Your task to perform on an android device: delete location history Image 0: 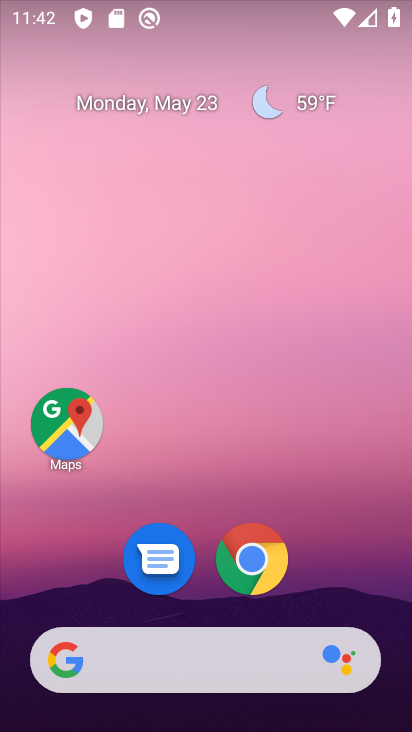
Step 0: drag from (399, 694) to (326, 165)
Your task to perform on an android device: delete location history Image 1: 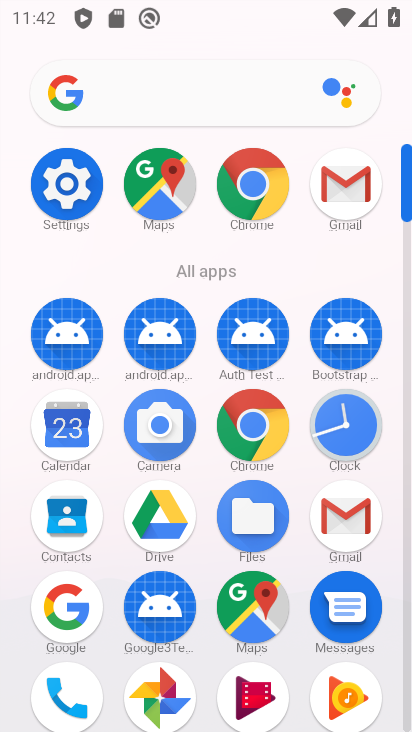
Step 1: click (252, 592)
Your task to perform on an android device: delete location history Image 2: 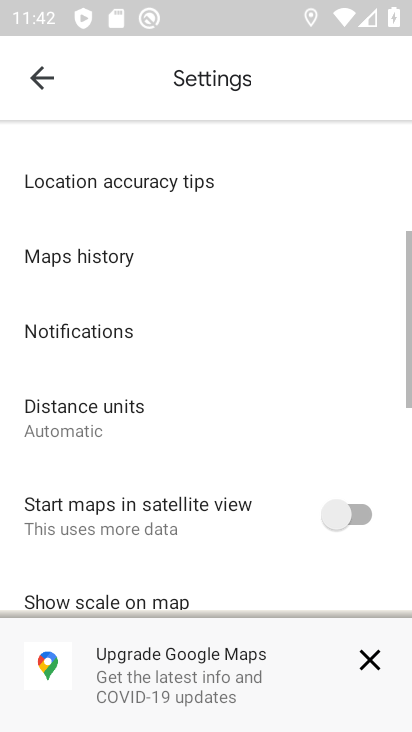
Step 2: click (36, 76)
Your task to perform on an android device: delete location history Image 3: 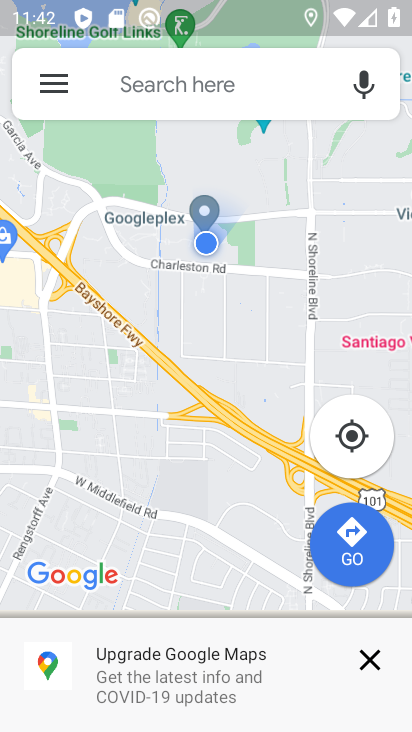
Step 3: click (51, 85)
Your task to perform on an android device: delete location history Image 4: 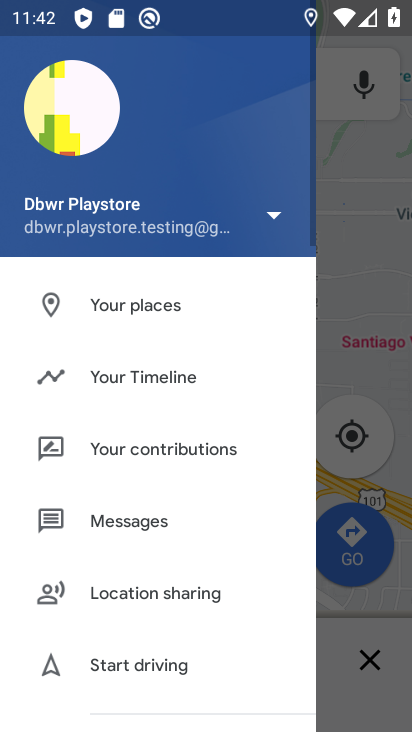
Step 4: click (128, 373)
Your task to perform on an android device: delete location history Image 5: 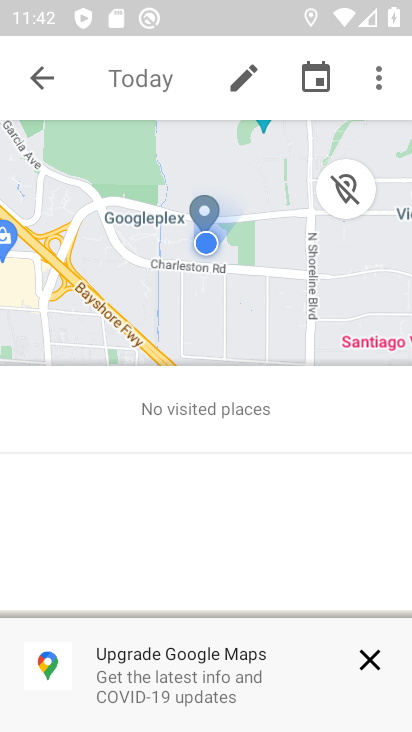
Step 5: click (376, 77)
Your task to perform on an android device: delete location history Image 6: 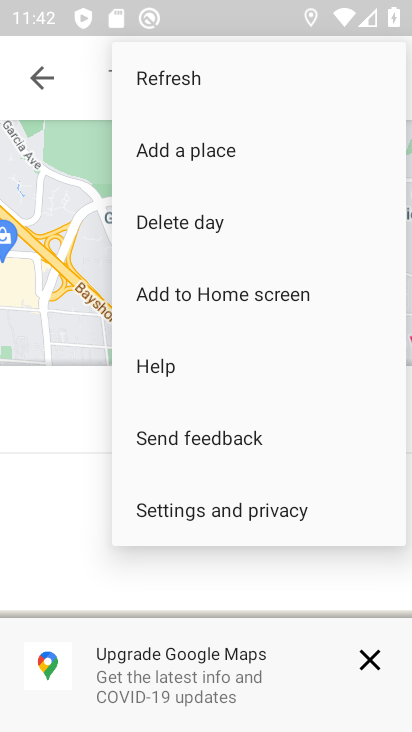
Step 6: click (205, 512)
Your task to perform on an android device: delete location history Image 7: 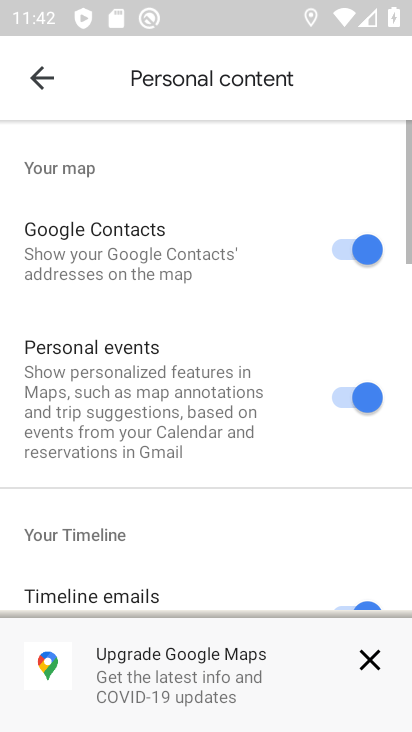
Step 7: drag from (252, 590) to (248, 296)
Your task to perform on an android device: delete location history Image 8: 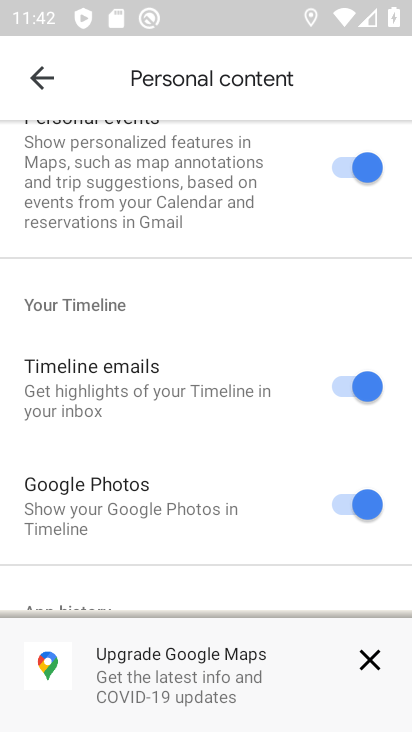
Step 8: drag from (259, 592) to (240, 170)
Your task to perform on an android device: delete location history Image 9: 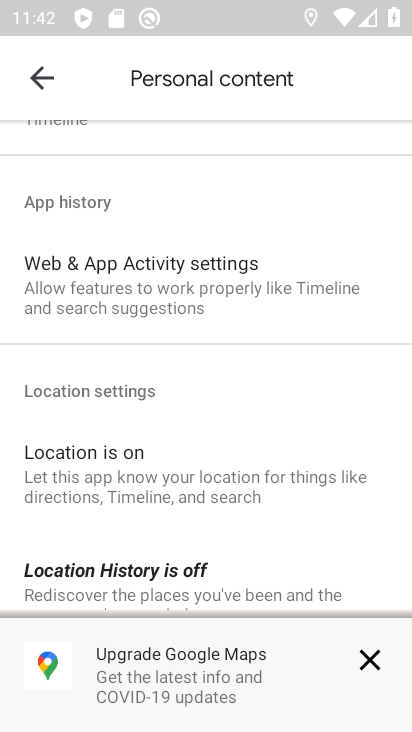
Step 9: drag from (261, 572) to (227, 256)
Your task to perform on an android device: delete location history Image 10: 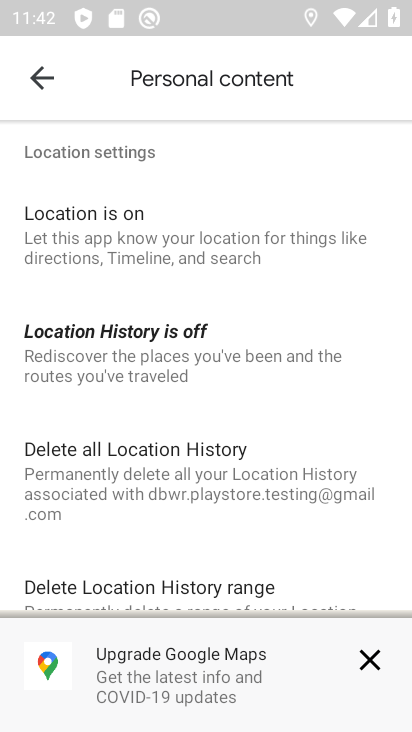
Step 10: drag from (286, 587) to (251, 288)
Your task to perform on an android device: delete location history Image 11: 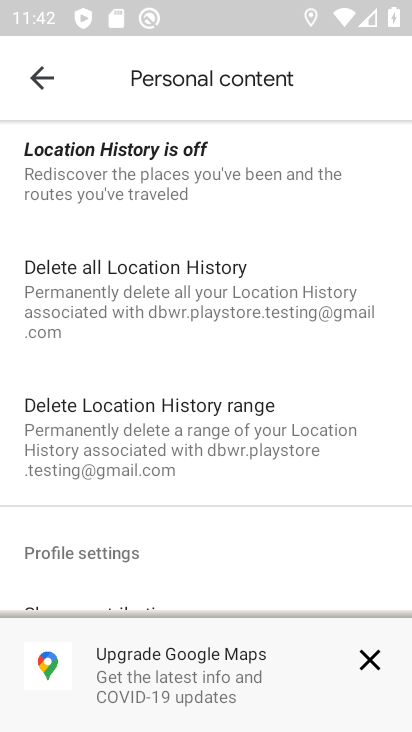
Step 11: drag from (242, 580) to (241, 301)
Your task to perform on an android device: delete location history Image 12: 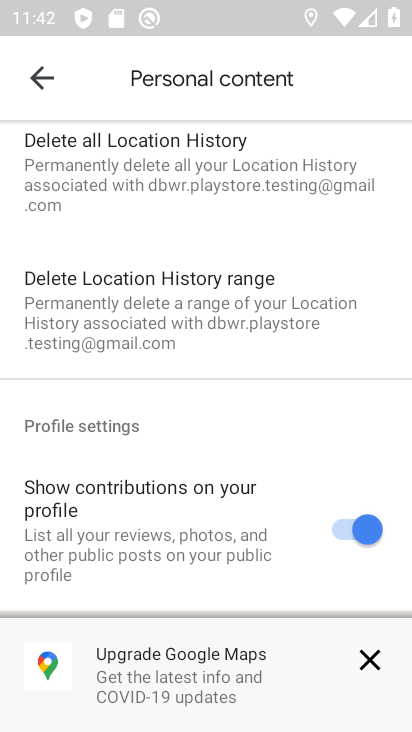
Step 12: drag from (231, 232) to (251, 474)
Your task to perform on an android device: delete location history Image 13: 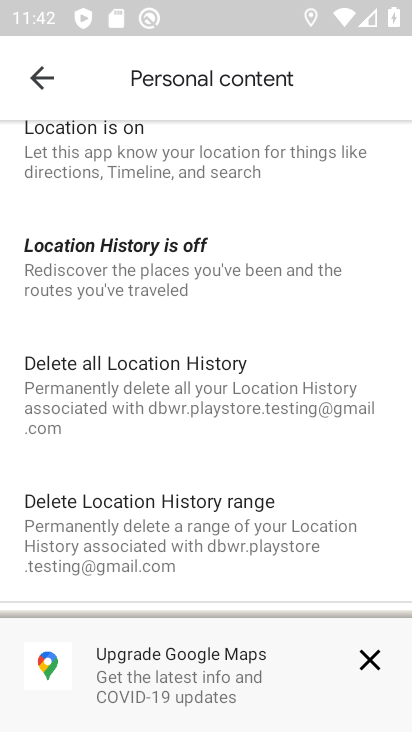
Step 13: click (110, 385)
Your task to perform on an android device: delete location history Image 14: 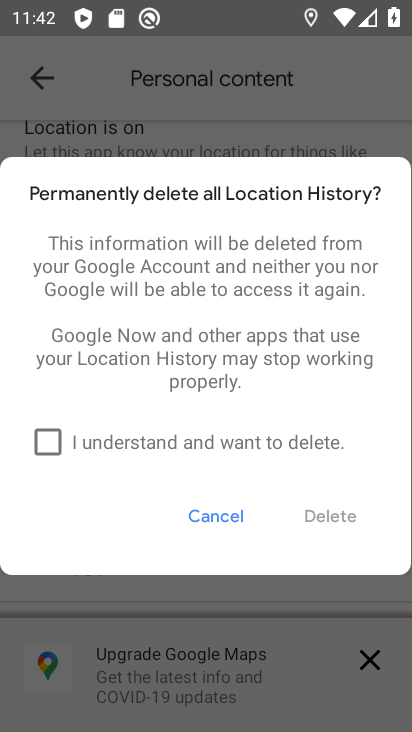
Step 14: click (37, 438)
Your task to perform on an android device: delete location history Image 15: 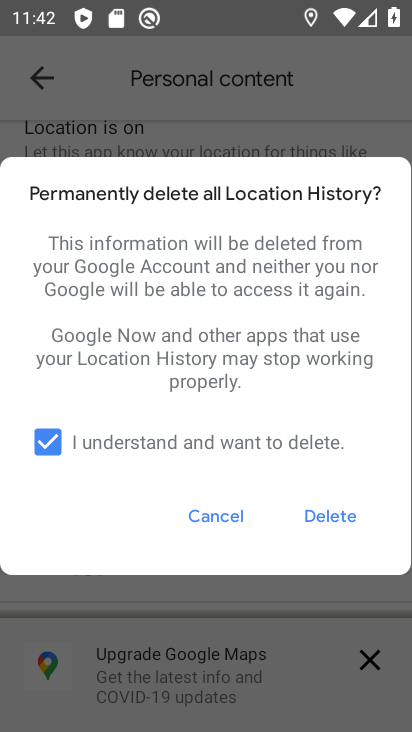
Step 15: click (331, 507)
Your task to perform on an android device: delete location history Image 16: 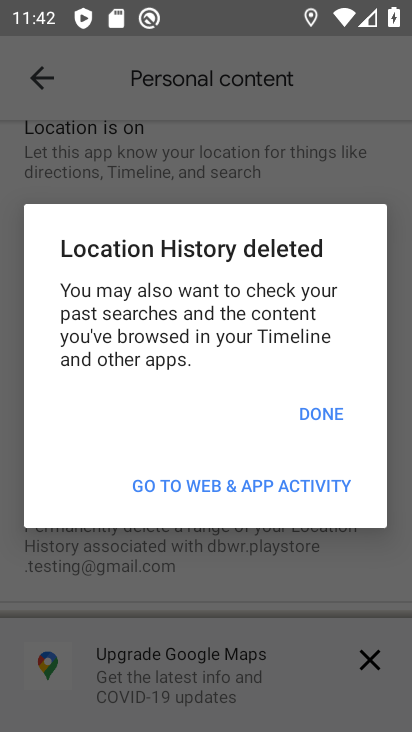
Step 16: click (323, 415)
Your task to perform on an android device: delete location history Image 17: 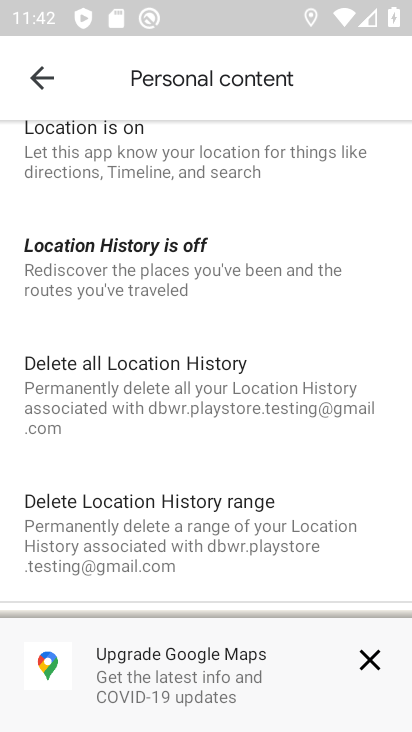
Step 17: task complete